Your task to perform on an android device: turn off smart reply in the gmail app Image 0: 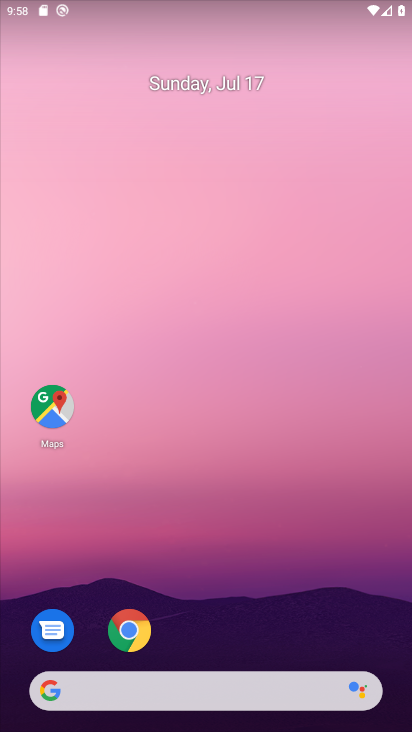
Step 0: drag from (255, 615) to (238, 2)
Your task to perform on an android device: turn off smart reply in the gmail app Image 1: 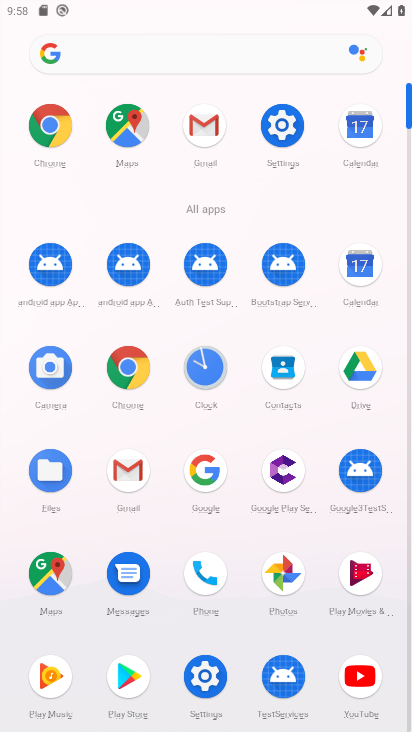
Step 1: click (130, 491)
Your task to perform on an android device: turn off smart reply in the gmail app Image 2: 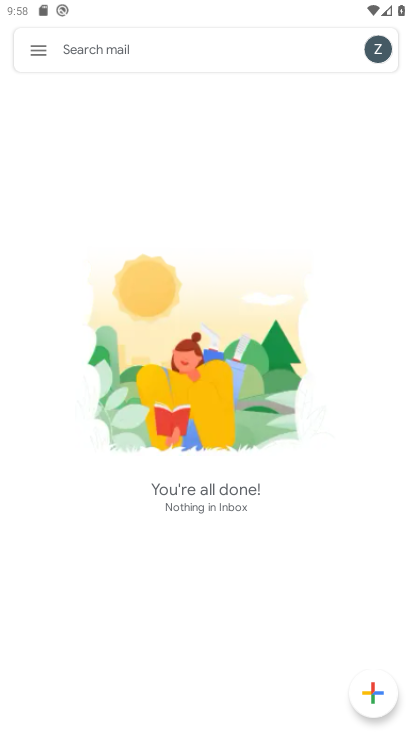
Step 2: click (44, 45)
Your task to perform on an android device: turn off smart reply in the gmail app Image 3: 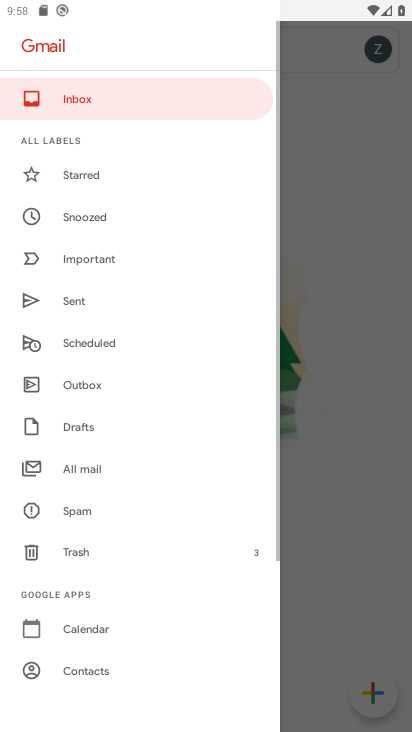
Step 3: drag from (116, 605) to (189, 29)
Your task to perform on an android device: turn off smart reply in the gmail app Image 4: 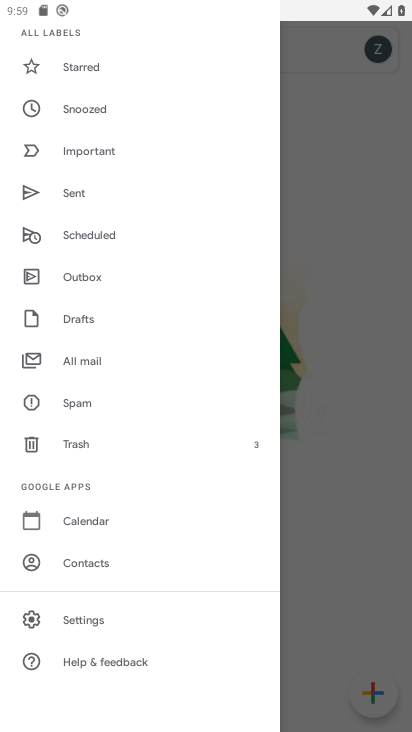
Step 4: click (82, 625)
Your task to perform on an android device: turn off smart reply in the gmail app Image 5: 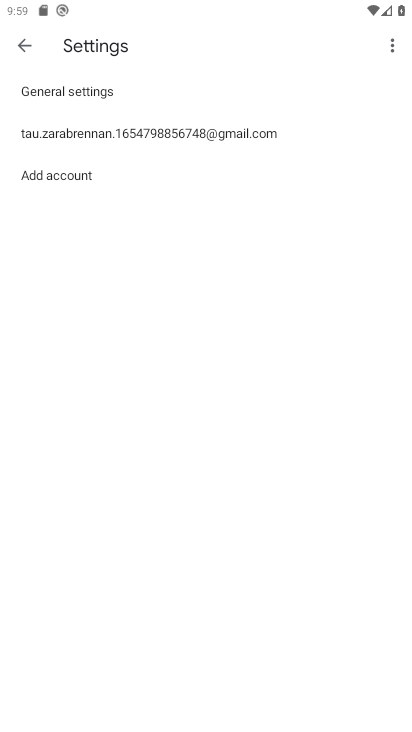
Step 5: click (80, 141)
Your task to perform on an android device: turn off smart reply in the gmail app Image 6: 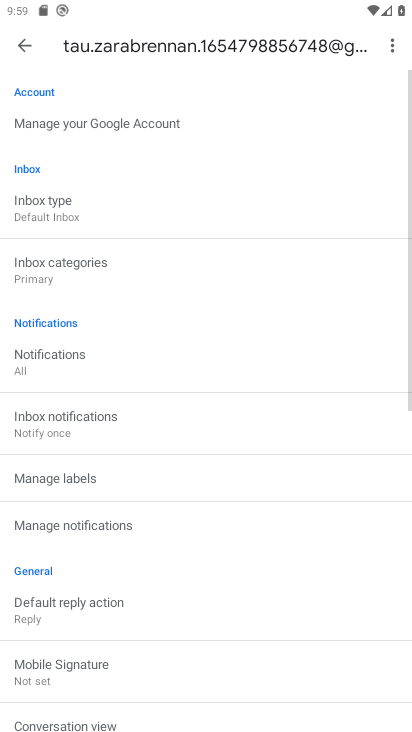
Step 6: drag from (136, 551) to (203, 49)
Your task to perform on an android device: turn off smart reply in the gmail app Image 7: 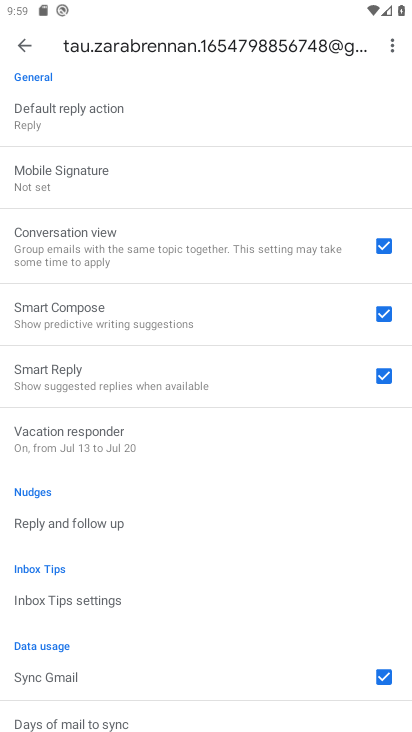
Step 7: click (140, 384)
Your task to perform on an android device: turn off smart reply in the gmail app Image 8: 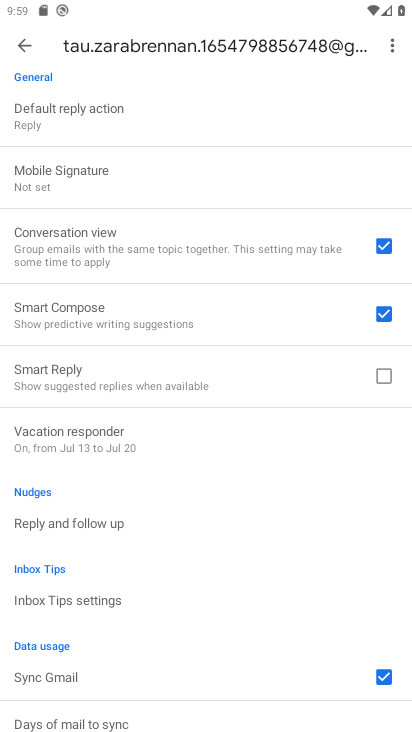
Step 8: task complete